Your task to perform on an android device: Is it going to rain tomorrow? Image 0: 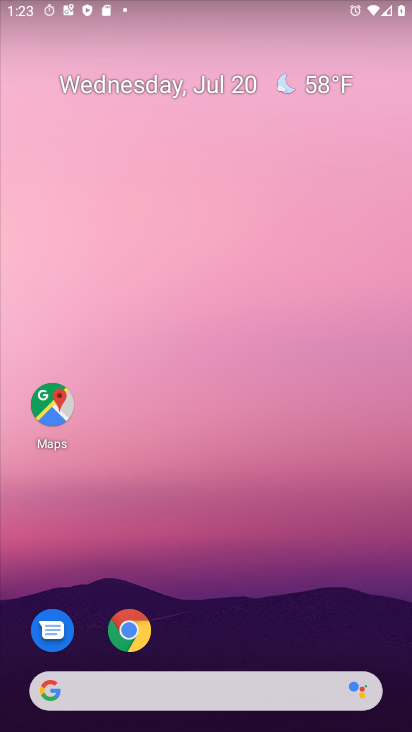
Step 0: click (161, 684)
Your task to perform on an android device: Is it going to rain tomorrow? Image 1: 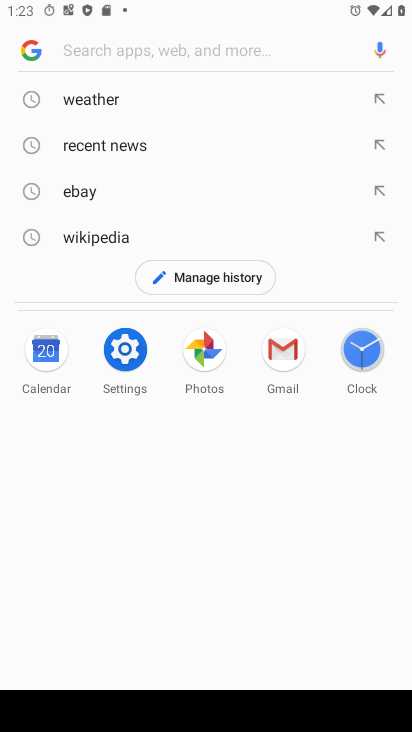
Step 1: click (87, 108)
Your task to perform on an android device: Is it going to rain tomorrow? Image 2: 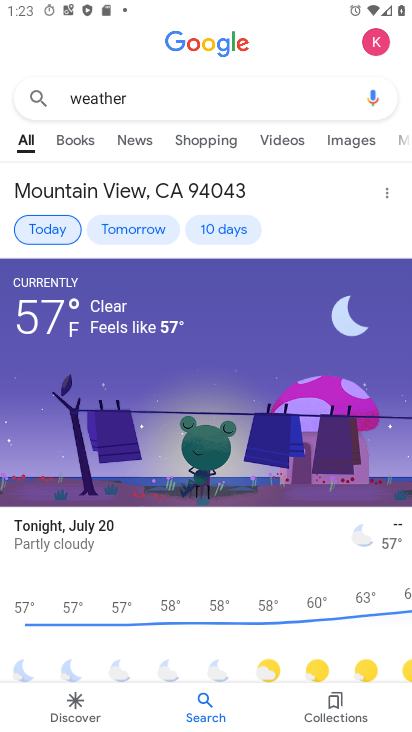
Step 2: click (142, 221)
Your task to perform on an android device: Is it going to rain tomorrow? Image 3: 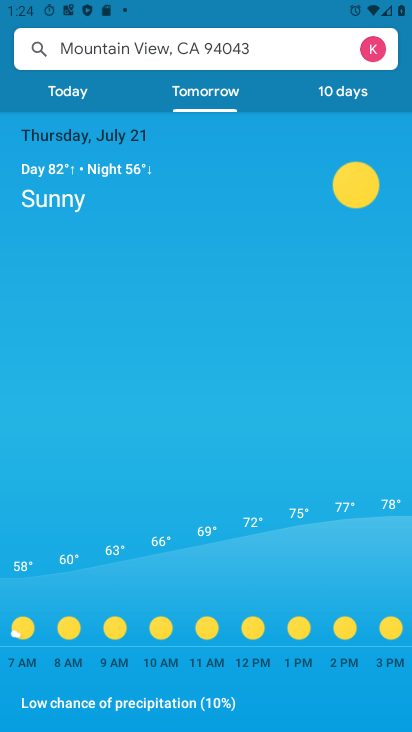
Step 3: task complete